Your task to perform on an android device: turn on the 12-hour format for clock Image 0: 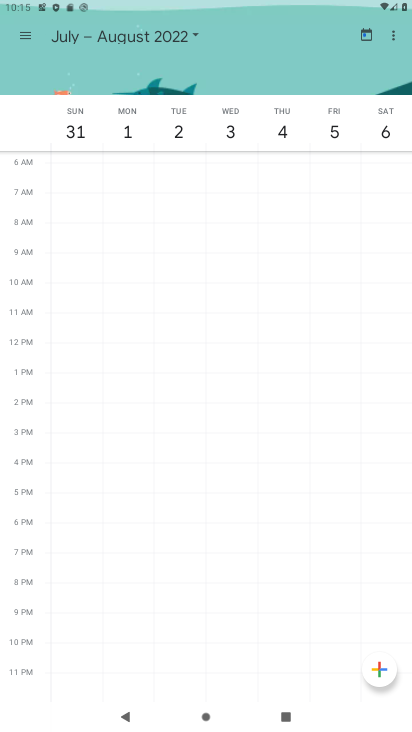
Step 0: press home button
Your task to perform on an android device: turn on the 12-hour format for clock Image 1: 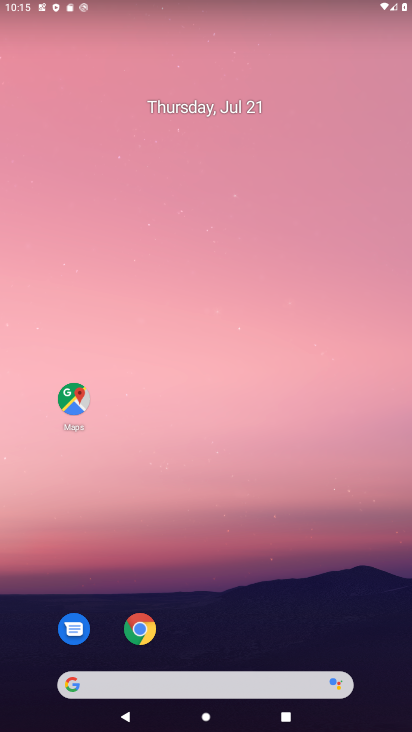
Step 1: drag from (284, 612) to (239, 115)
Your task to perform on an android device: turn on the 12-hour format for clock Image 2: 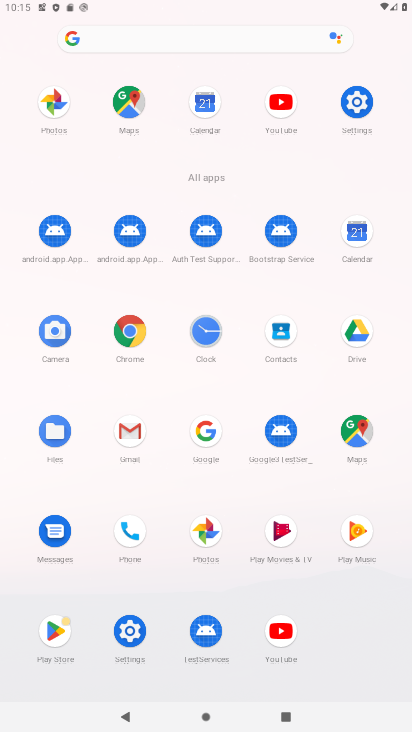
Step 2: click (214, 324)
Your task to perform on an android device: turn on the 12-hour format for clock Image 3: 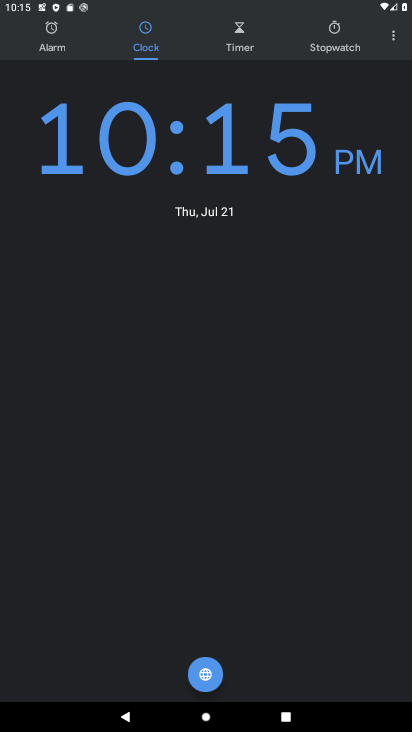
Step 3: click (396, 35)
Your task to perform on an android device: turn on the 12-hour format for clock Image 4: 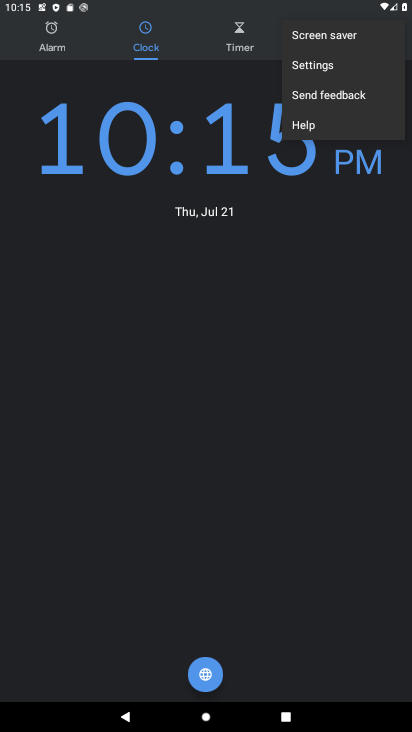
Step 4: click (314, 65)
Your task to perform on an android device: turn on the 12-hour format for clock Image 5: 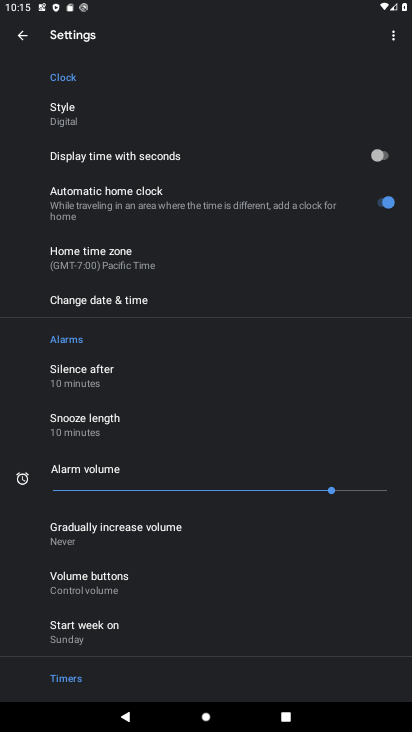
Step 5: click (116, 301)
Your task to perform on an android device: turn on the 12-hour format for clock Image 6: 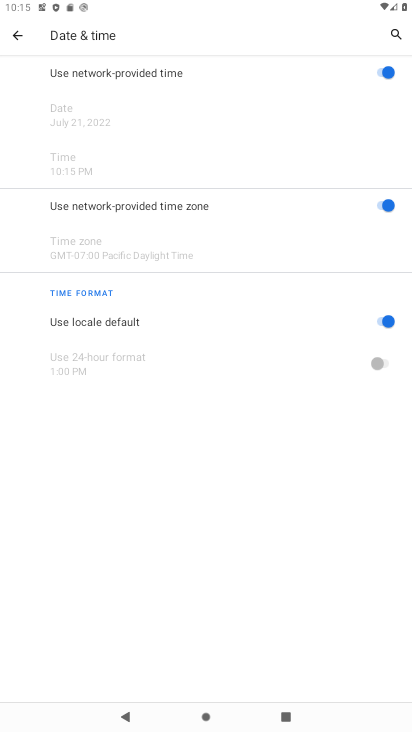
Step 6: task complete